Your task to perform on an android device: Is it going to rain today? Image 0: 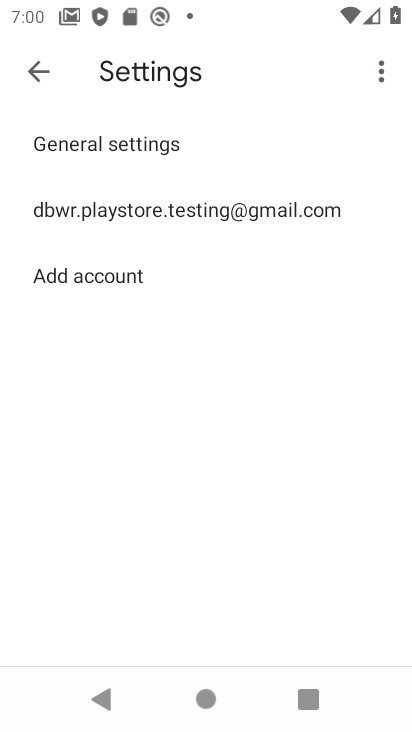
Step 0: press home button
Your task to perform on an android device: Is it going to rain today? Image 1: 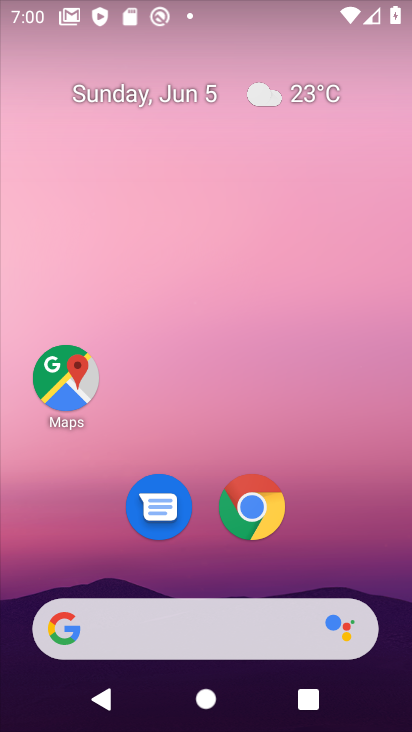
Step 1: click (202, 641)
Your task to perform on an android device: Is it going to rain today? Image 2: 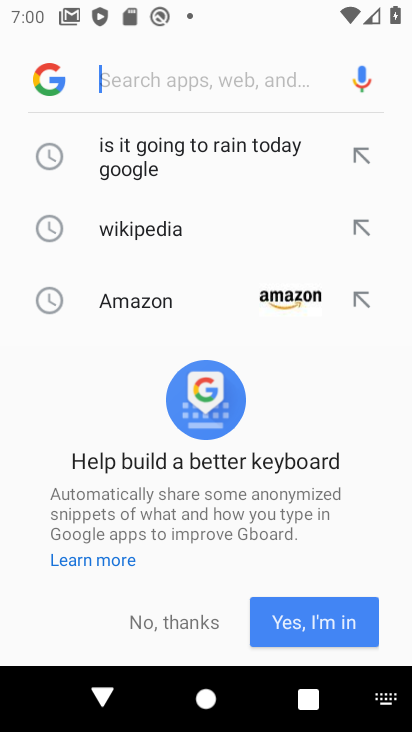
Step 2: click (150, 612)
Your task to perform on an android device: Is it going to rain today? Image 3: 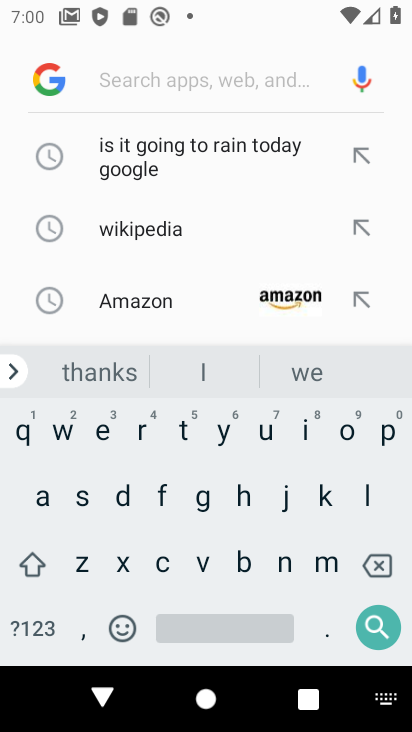
Step 3: click (196, 168)
Your task to perform on an android device: Is it going to rain today? Image 4: 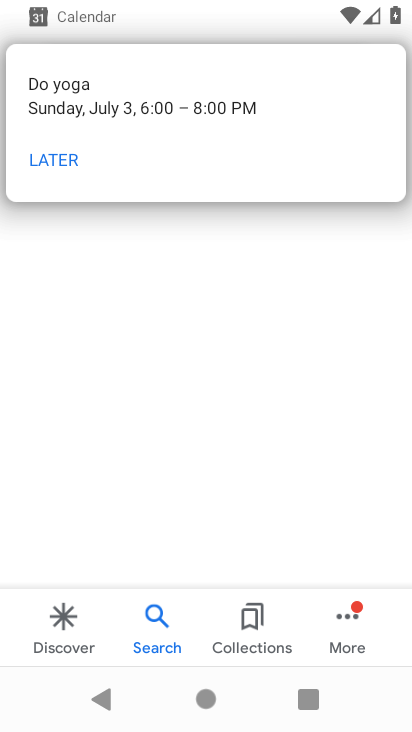
Step 4: click (40, 160)
Your task to perform on an android device: Is it going to rain today? Image 5: 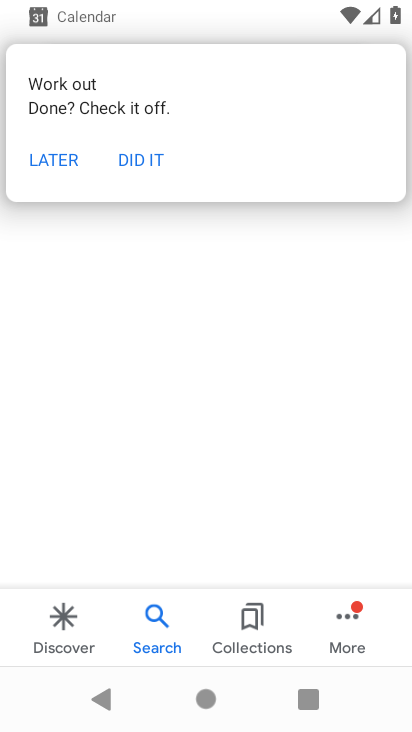
Step 5: click (40, 160)
Your task to perform on an android device: Is it going to rain today? Image 6: 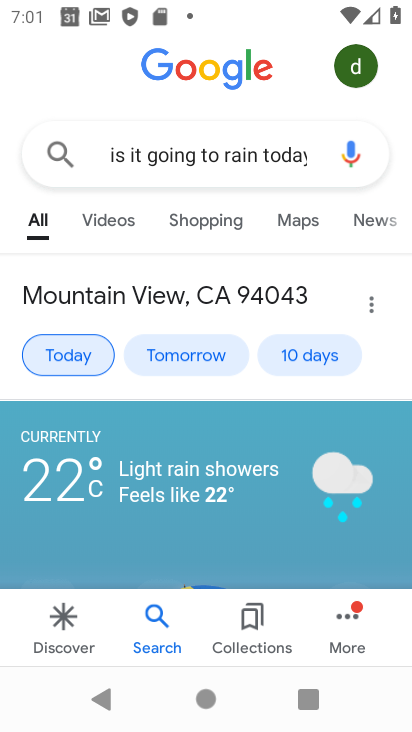
Step 6: task complete